Your task to perform on an android device: install app "Google Home" Image 0: 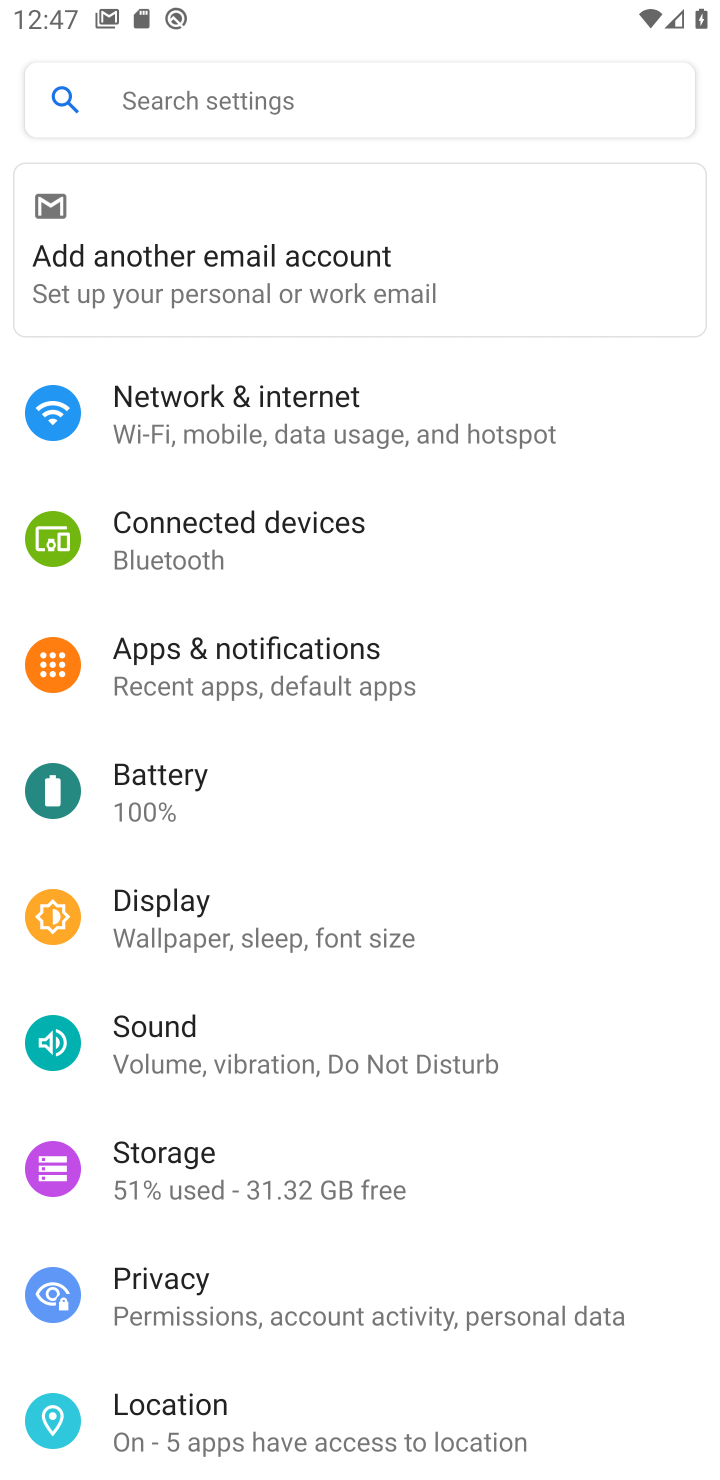
Step 0: press home button
Your task to perform on an android device: install app "Google Home" Image 1: 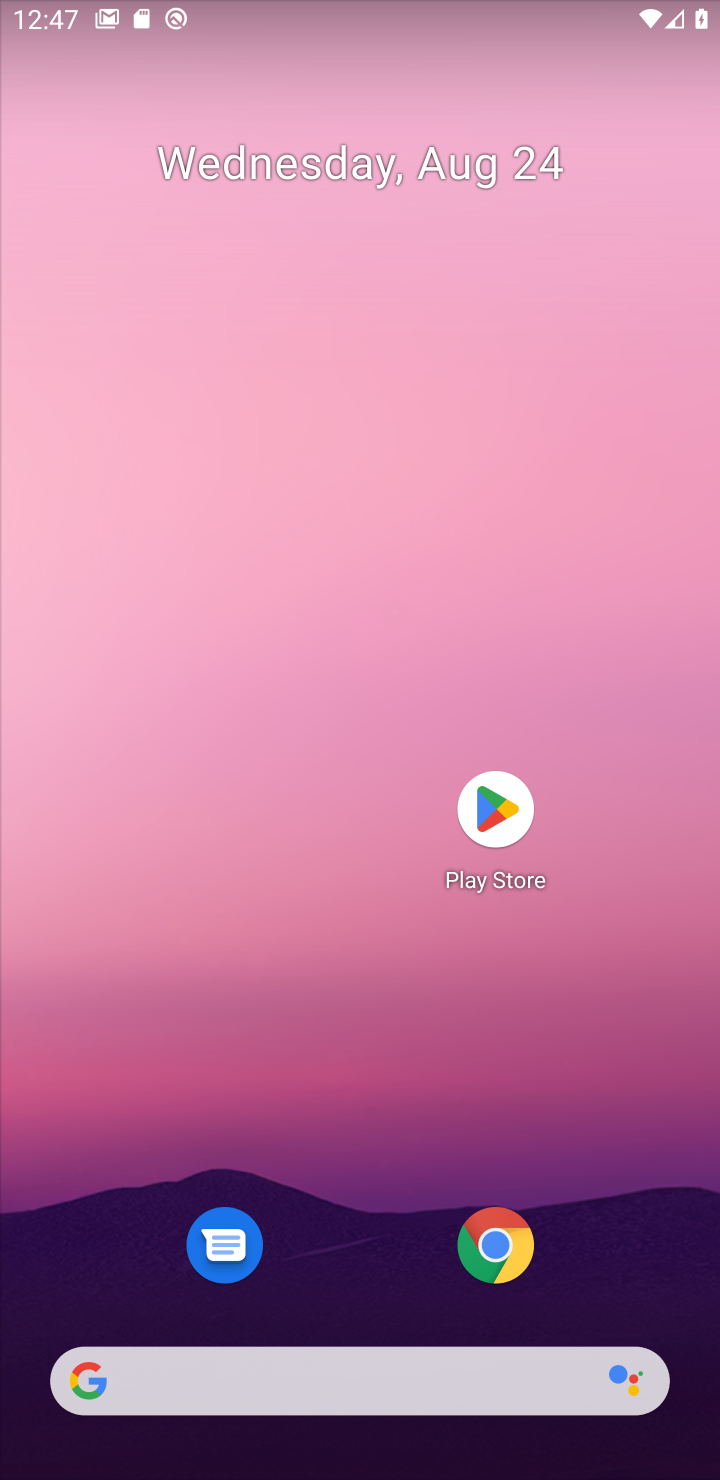
Step 1: click (502, 804)
Your task to perform on an android device: install app "Google Home" Image 2: 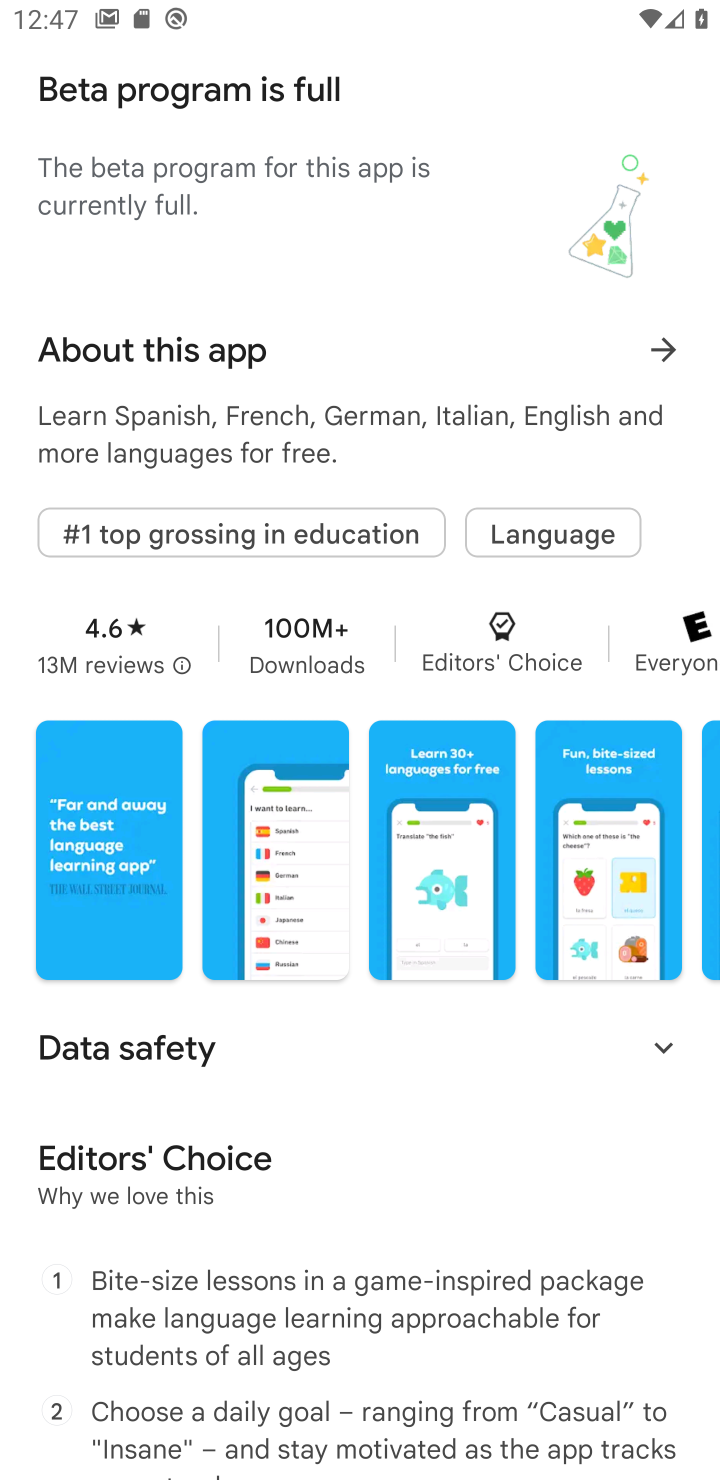
Step 2: drag from (356, 248) to (299, 1231)
Your task to perform on an android device: install app "Google Home" Image 3: 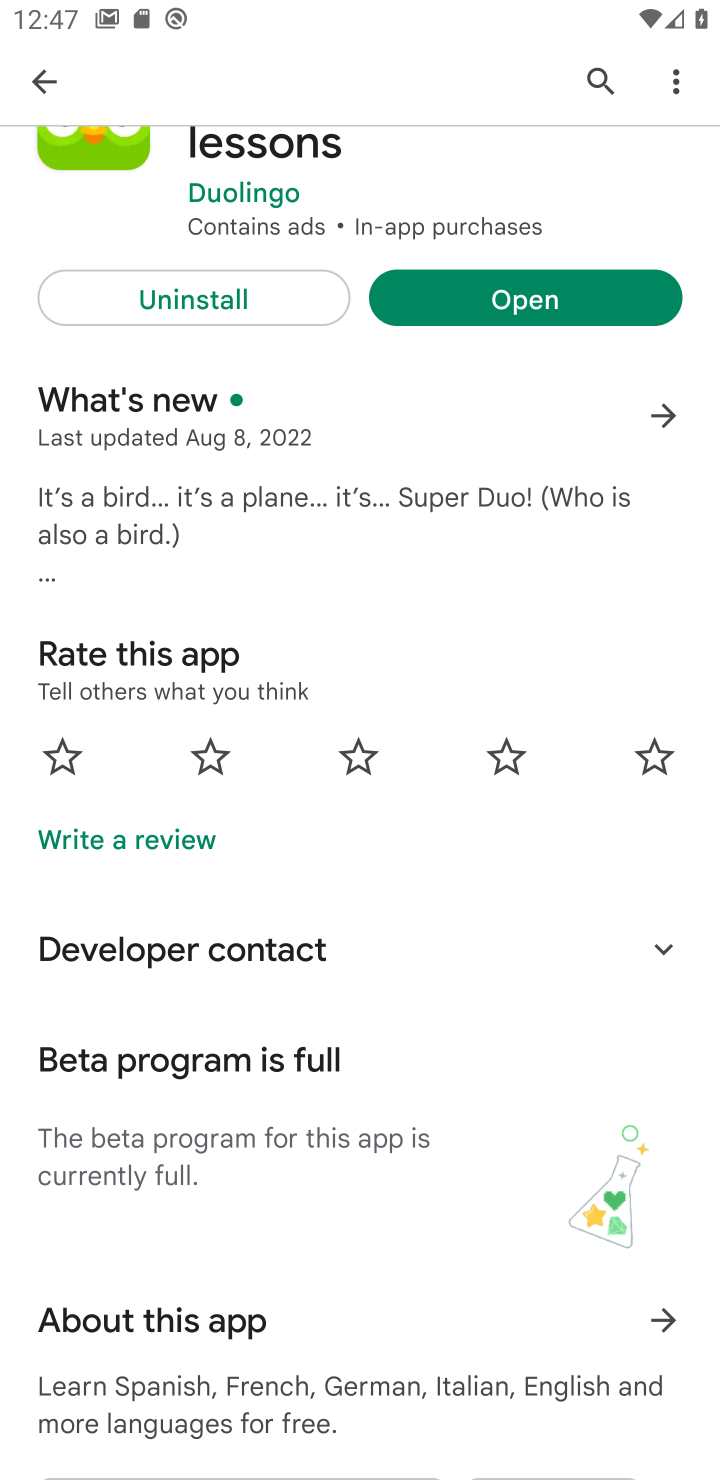
Step 3: click (600, 58)
Your task to perform on an android device: install app "Google Home" Image 4: 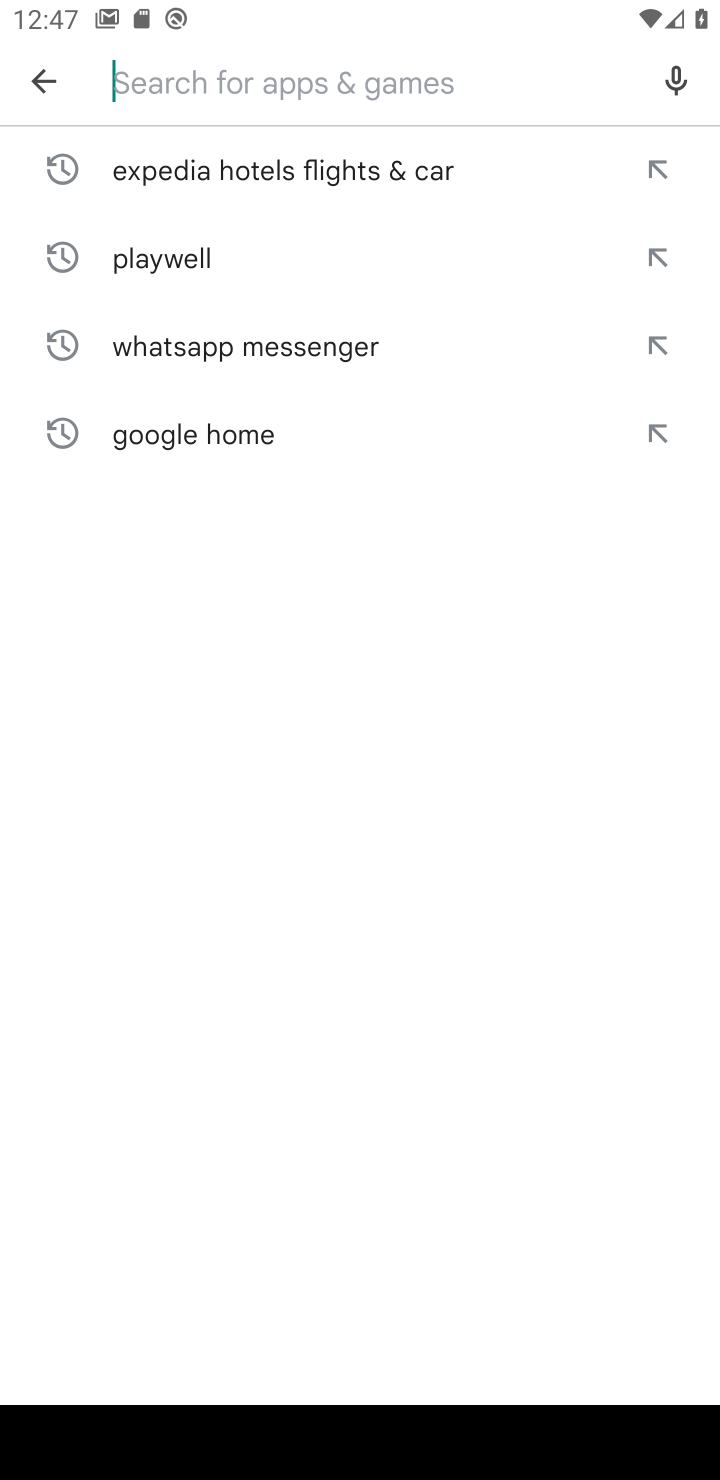
Step 4: type "Google Home"
Your task to perform on an android device: install app "Google Home" Image 5: 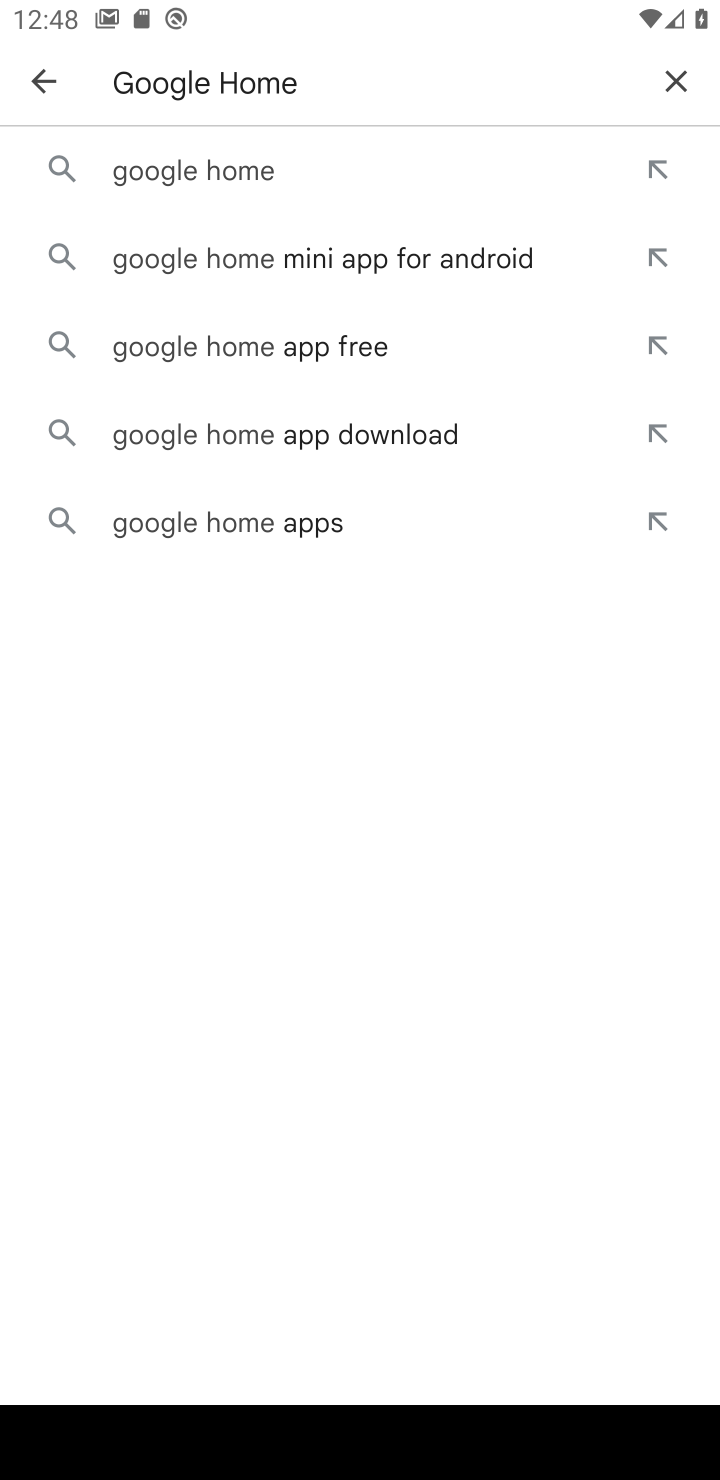
Step 5: click (210, 158)
Your task to perform on an android device: install app "Google Home" Image 6: 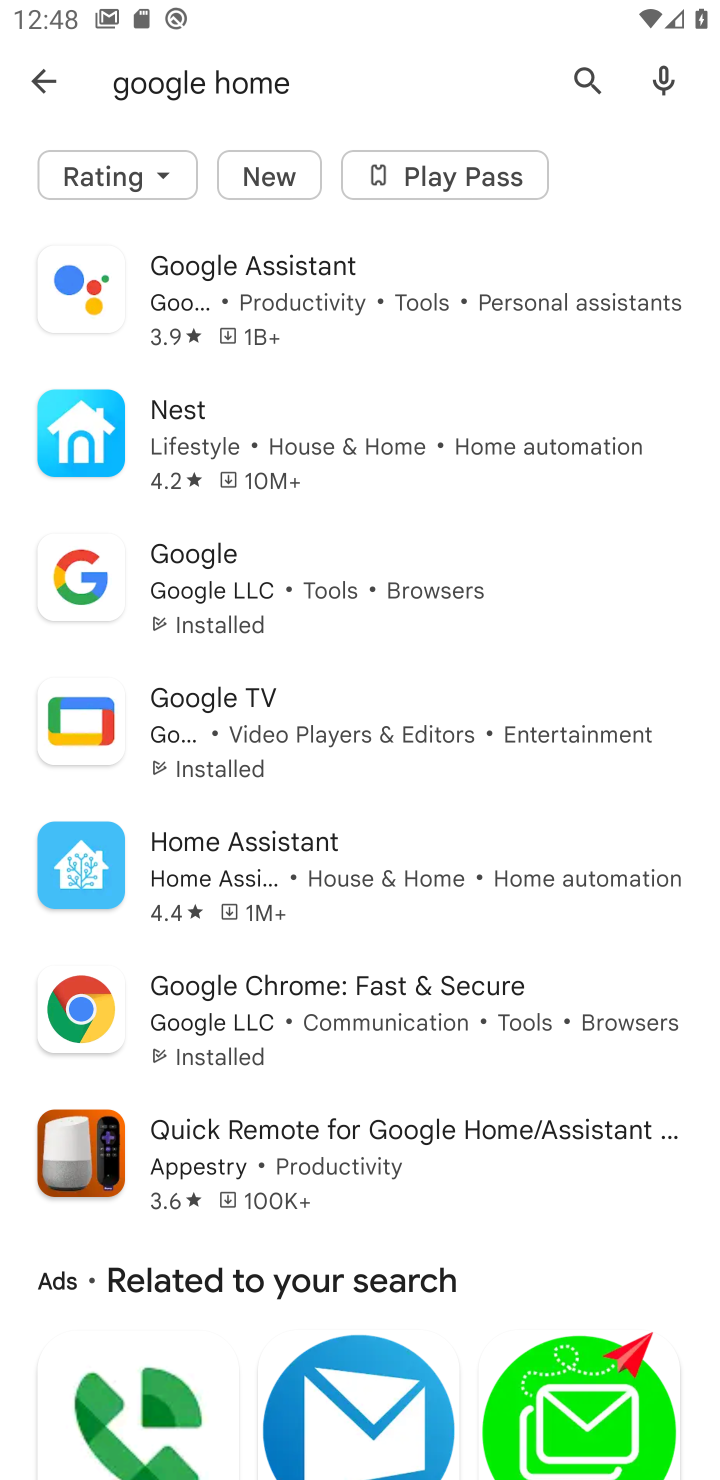
Step 6: task complete